Your task to perform on an android device: Open notification settings Image 0: 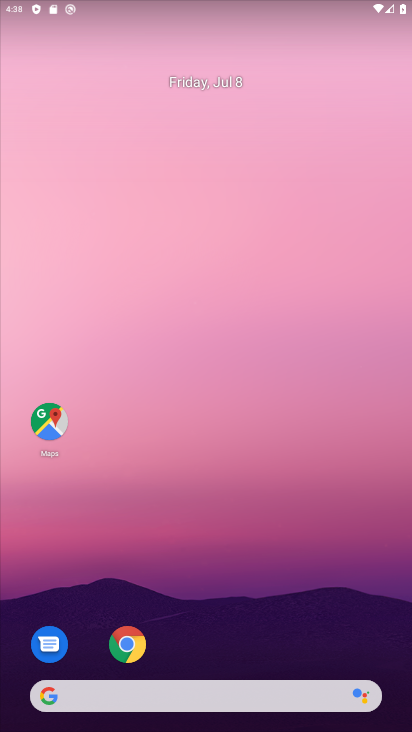
Step 0: drag from (320, 613) to (263, 81)
Your task to perform on an android device: Open notification settings Image 1: 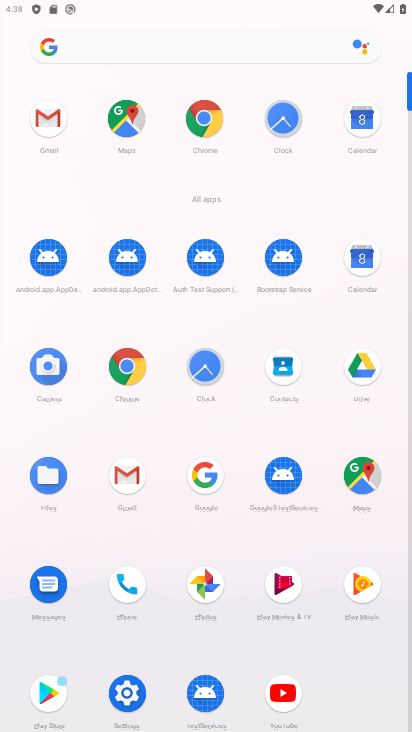
Step 1: click (124, 698)
Your task to perform on an android device: Open notification settings Image 2: 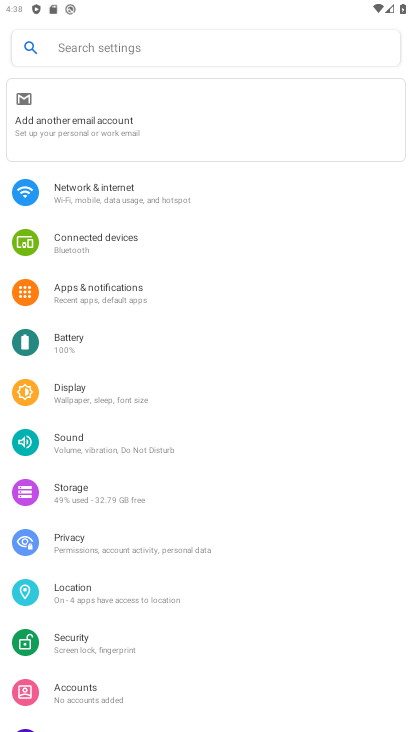
Step 2: click (119, 281)
Your task to perform on an android device: Open notification settings Image 3: 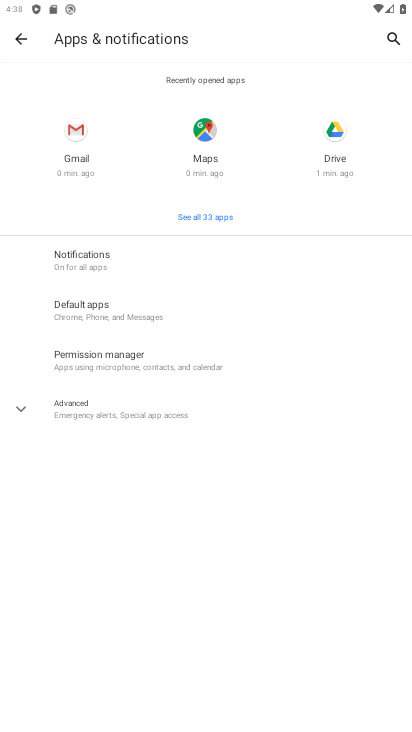
Step 3: click (93, 263)
Your task to perform on an android device: Open notification settings Image 4: 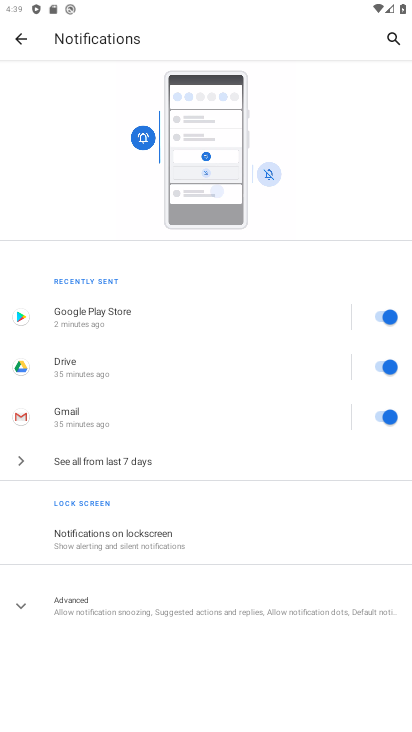
Step 4: task complete